Your task to perform on an android device: Go to Wikipedia Image 0: 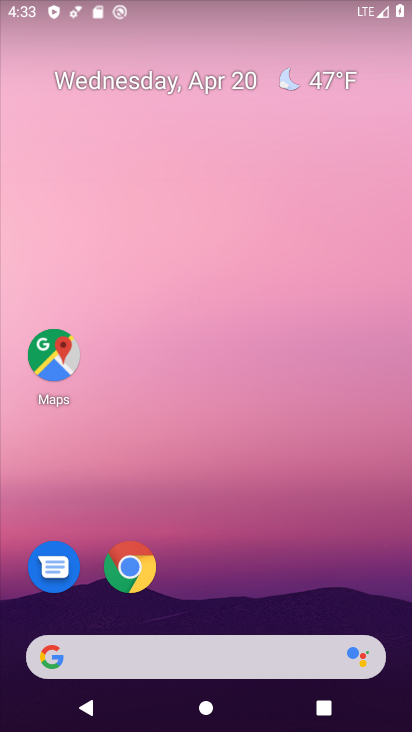
Step 0: drag from (227, 506) to (195, 0)
Your task to perform on an android device: Go to Wikipedia Image 1: 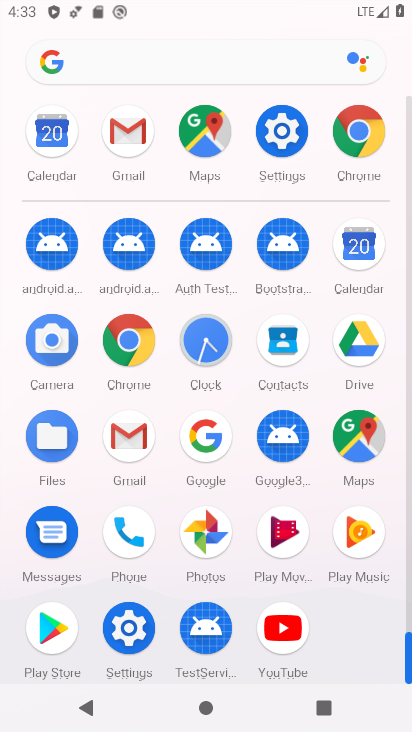
Step 1: drag from (15, 481) to (17, 219)
Your task to perform on an android device: Go to Wikipedia Image 2: 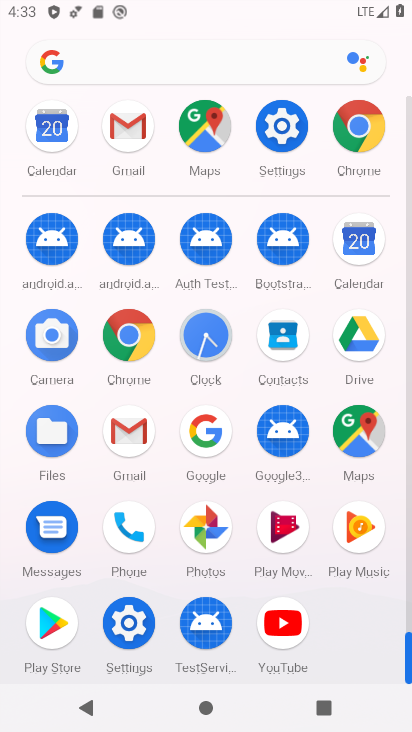
Step 2: click (131, 621)
Your task to perform on an android device: Go to Wikipedia Image 3: 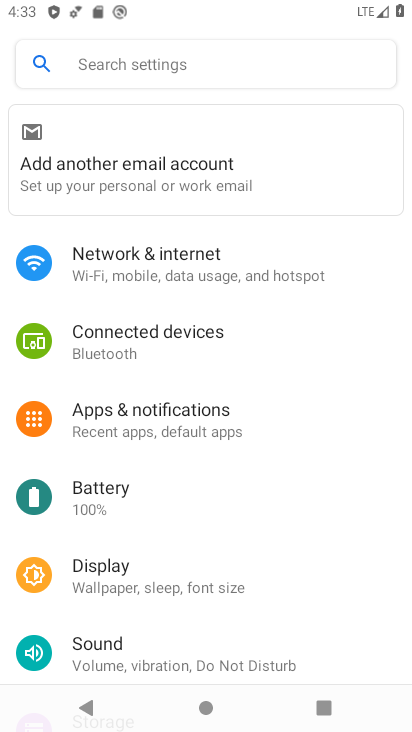
Step 3: drag from (277, 529) to (301, 124)
Your task to perform on an android device: Go to Wikipedia Image 4: 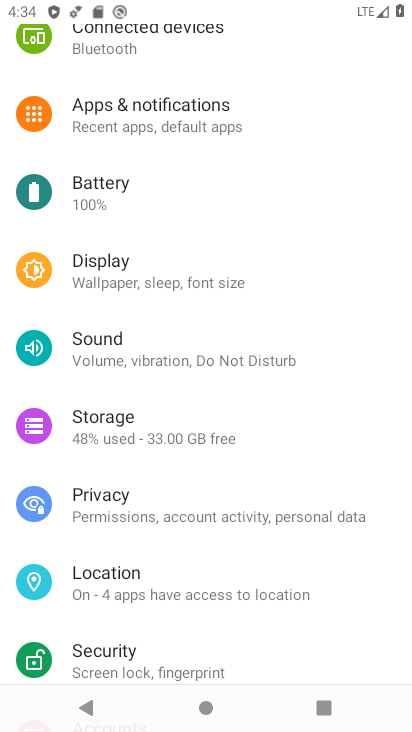
Step 4: drag from (267, 376) to (269, 68)
Your task to perform on an android device: Go to Wikipedia Image 5: 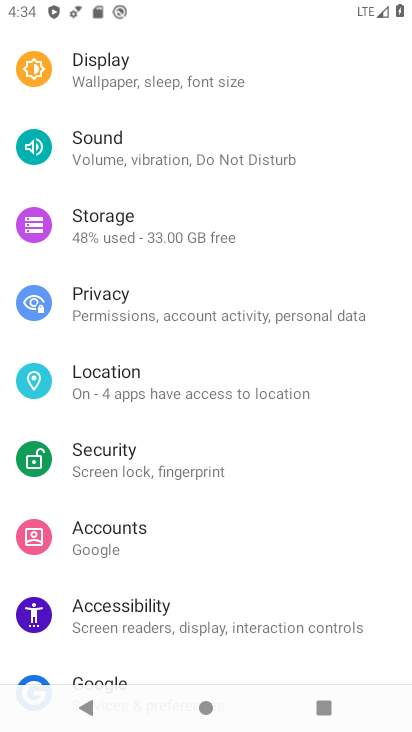
Step 5: drag from (267, 531) to (284, 98)
Your task to perform on an android device: Go to Wikipedia Image 6: 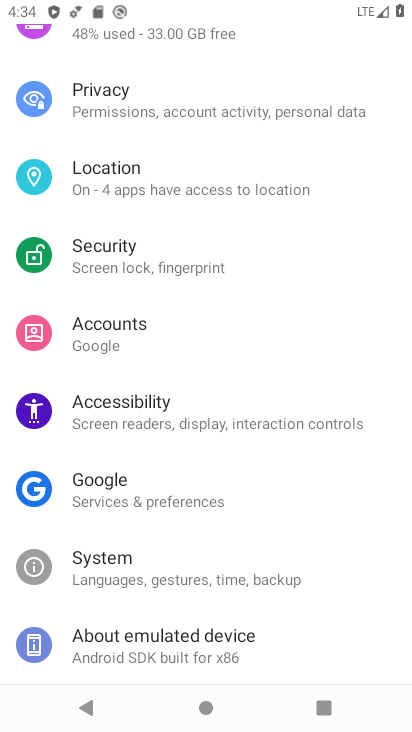
Step 6: drag from (256, 543) to (268, 65)
Your task to perform on an android device: Go to Wikipedia Image 7: 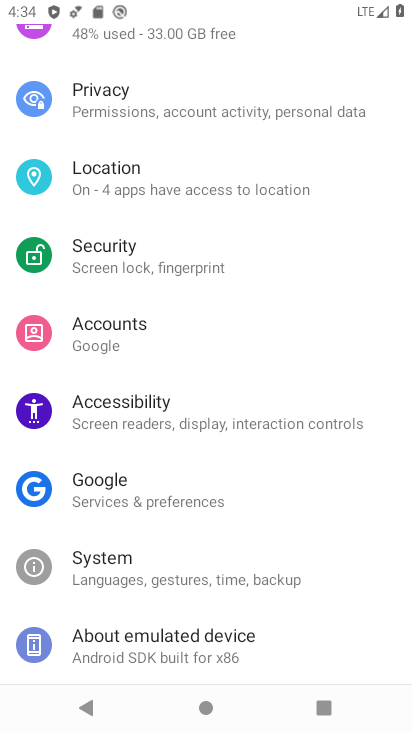
Step 7: press back button
Your task to perform on an android device: Go to Wikipedia Image 8: 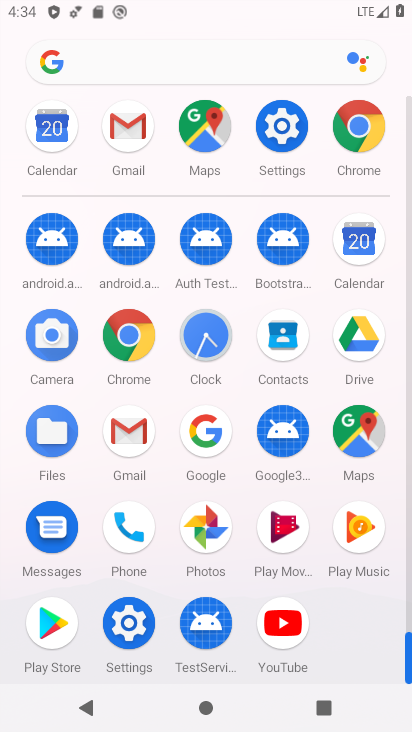
Step 8: click (130, 332)
Your task to perform on an android device: Go to Wikipedia Image 9: 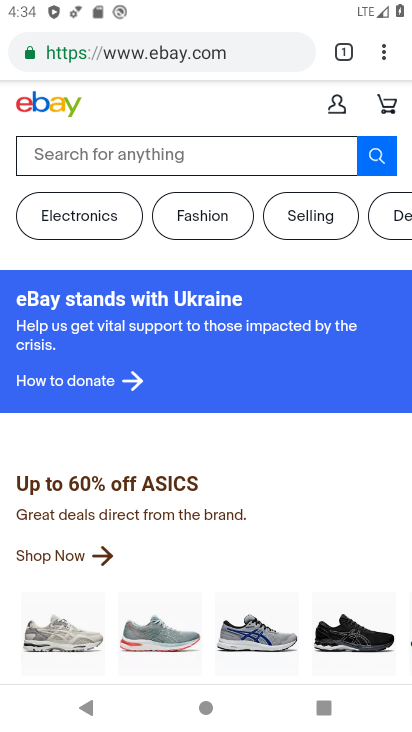
Step 9: click (193, 46)
Your task to perform on an android device: Go to Wikipedia Image 10: 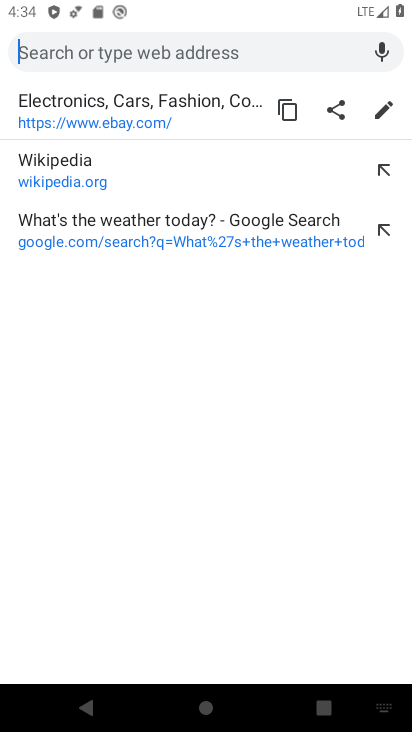
Step 10: type " Wikipedia"
Your task to perform on an android device: Go to Wikipedia Image 11: 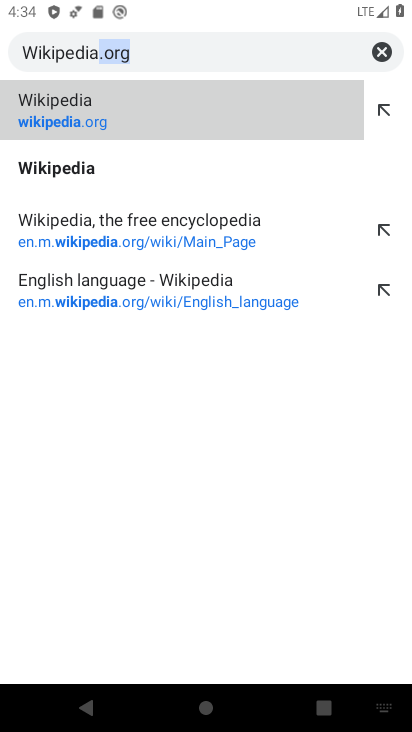
Step 11: click (117, 106)
Your task to perform on an android device: Go to Wikipedia Image 12: 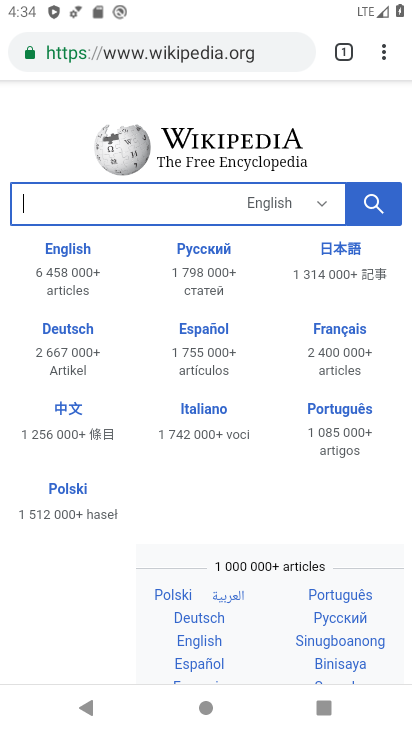
Step 12: task complete